Your task to perform on an android device: Go to Reddit.com Image 0: 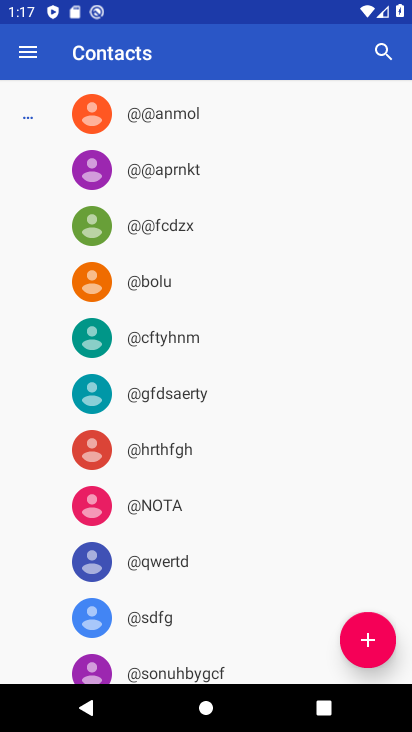
Step 0: press home button
Your task to perform on an android device: Go to Reddit.com Image 1: 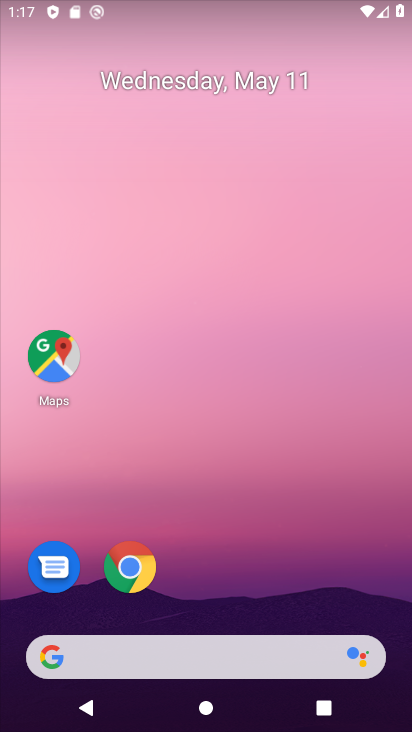
Step 1: drag from (244, 622) to (143, 19)
Your task to perform on an android device: Go to Reddit.com Image 2: 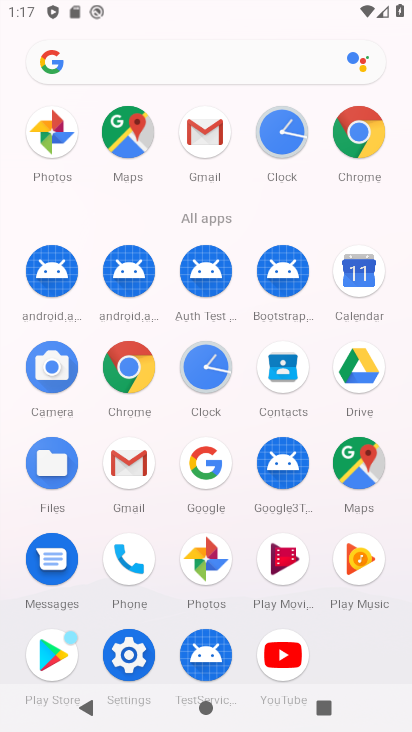
Step 2: click (352, 182)
Your task to perform on an android device: Go to Reddit.com Image 3: 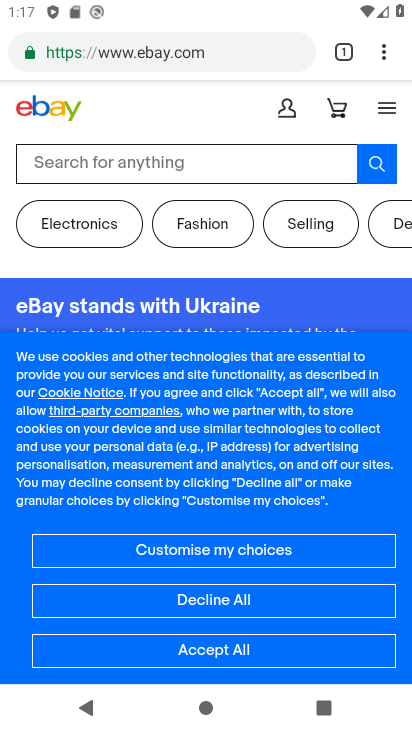
Step 3: click (342, 65)
Your task to perform on an android device: Go to Reddit.com Image 4: 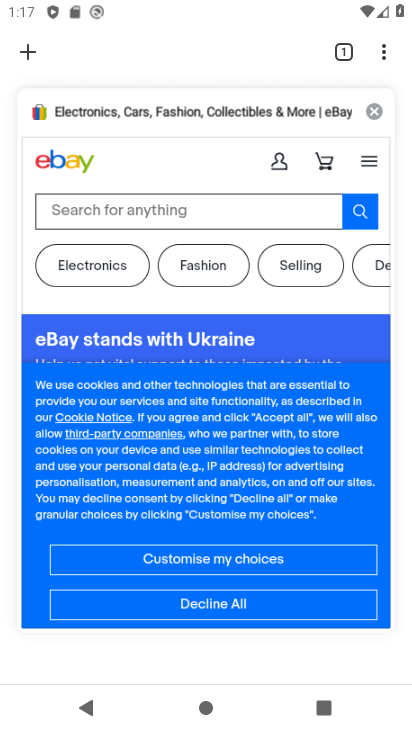
Step 4: click (40, 54)
Your task to perform on an android device: Go to Reddit.com Image 5: 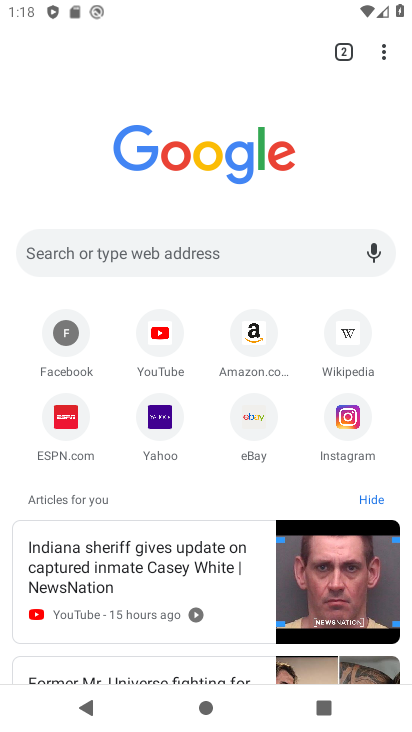
Step 5: click (157, 265)
Your task to perform on an android device: Go to Reddit.com Image 6: 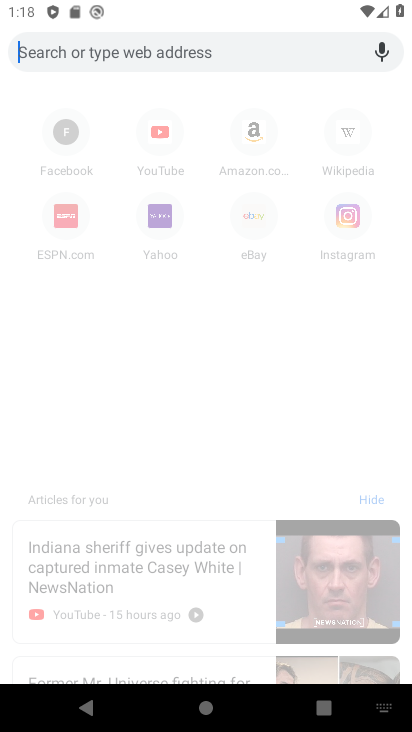
Step 6: type "reddit"
Your task to perform on an android device: Go to Reddit.com Image 7: 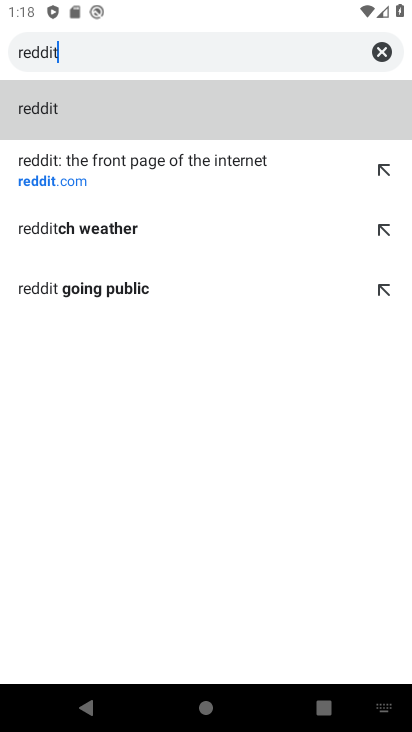
Step 7: click (164, 193)
Your task to perform on an android device: Go to Reddit.com Image 8: 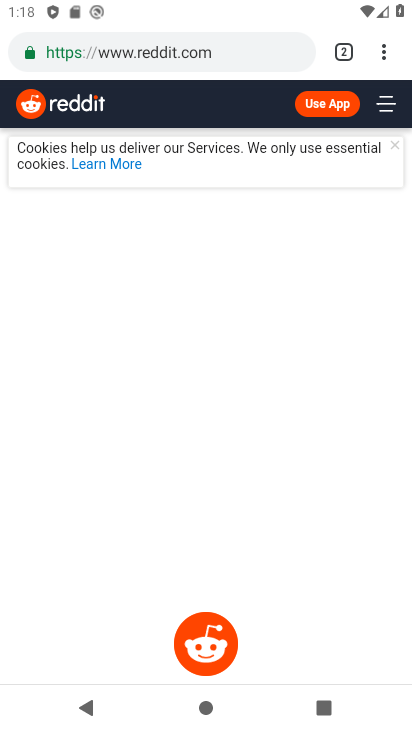
Step 8: task complete